Your task to perform on an android device: add a contact in the contacts app Image 0: 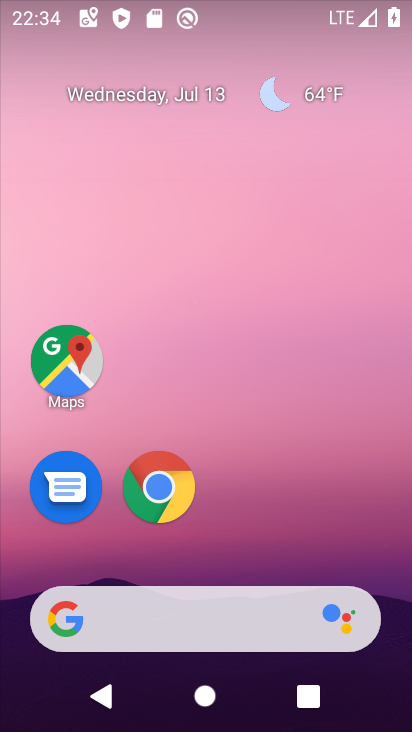
Step 0: drag from (248, 497) to (270, 50)
Your task to perform on an android device: add a contact in the contacts app Image 1: 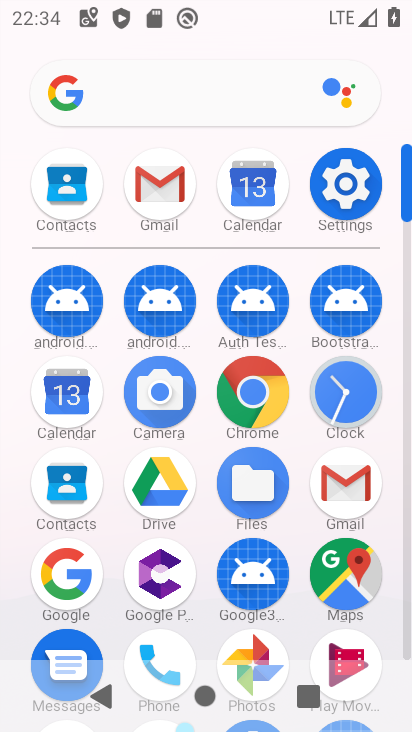
Step 1: click (68, 481)
Your task to perform on an android device: add a contact in the contacts app Image 2: 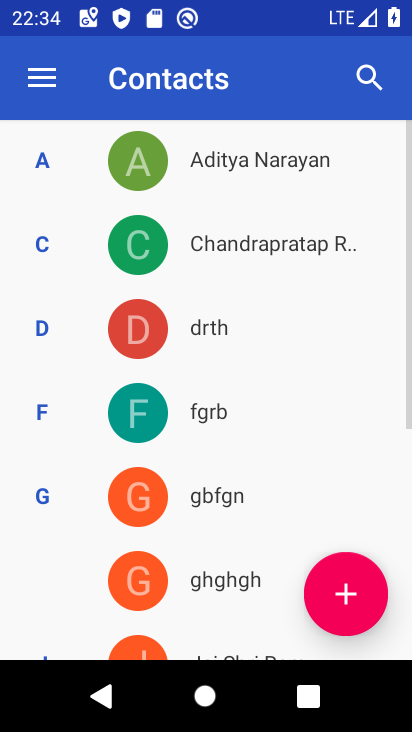
Step 2: click (345, 581)
Your task to perform on an android device: add a contact in the contacts app Image 3: 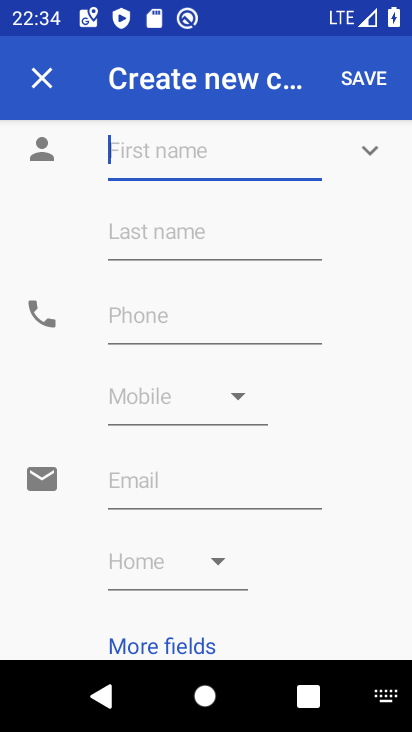
Step 3: click (154, 162)
Your task to perform on an android device: add a contact in the contacts app Image 4: 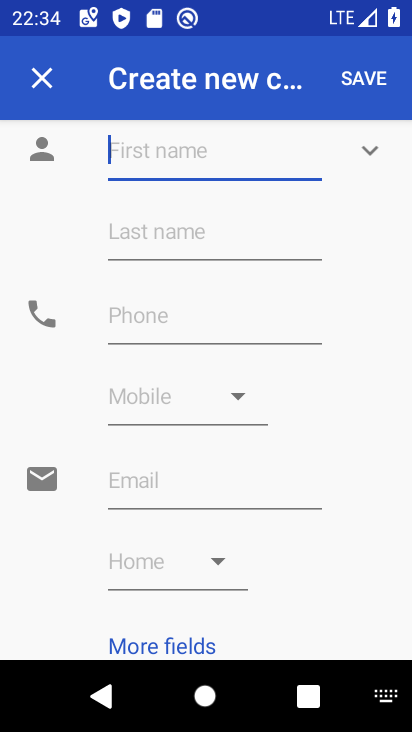
Step 4: type "ngnhn"
Your task to perform on an android device: add a contact in the contacts app Image 5: 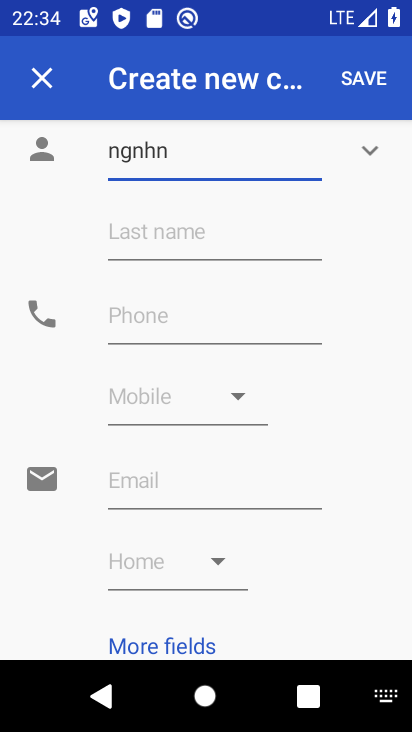
Step 5: click (144, 306)
Your task to perform on an android device: add a contact in the contacts app Image 6: 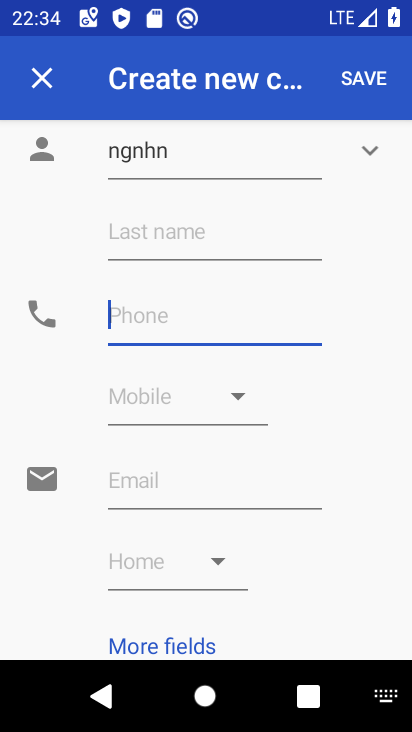
Step 6: type "65756"
Your task to perform on an android device: add a contact in the contacts app Image 7: 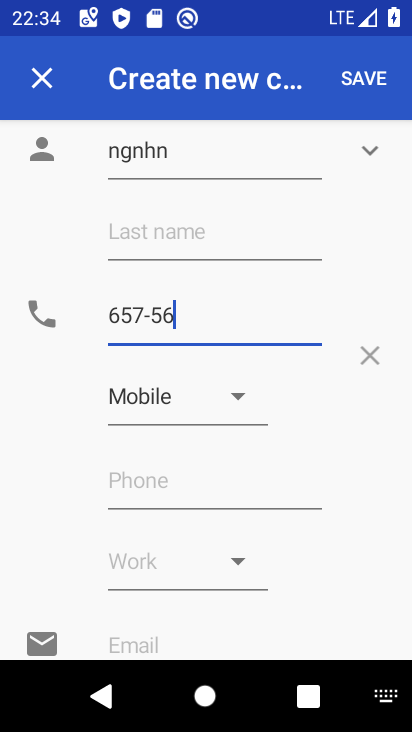
Step 7: click (354, 76)
Your task to perform on an android device: add a contact in the contacts app Image 8: 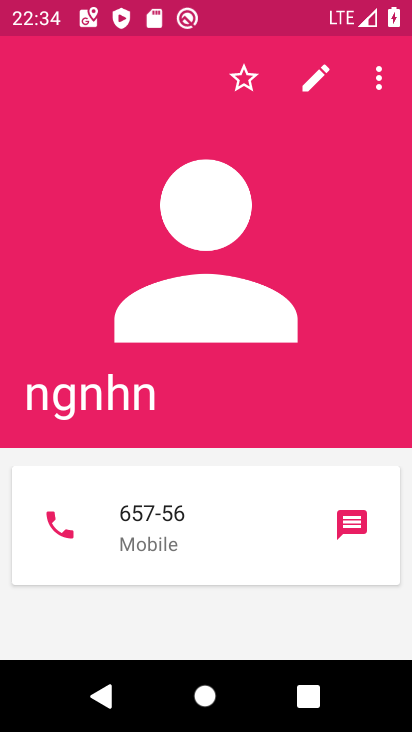
Step 8: task complete